Your task to perform on an android device: open a new tab in the chrome app Image 0: 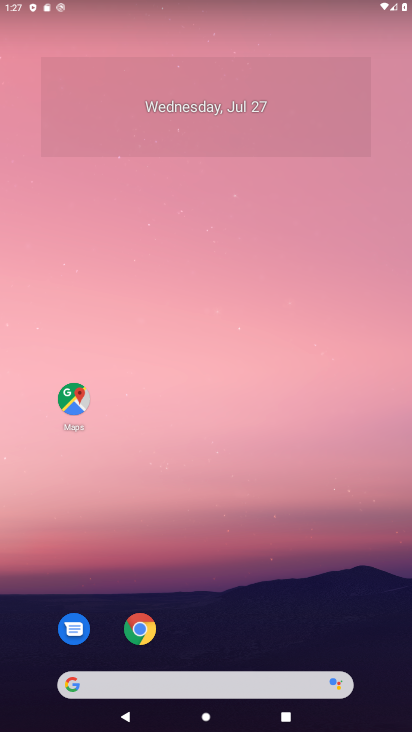
Step 0: press home button
Your task to perform on an android device: open a new tab in the chrome app Image 1: 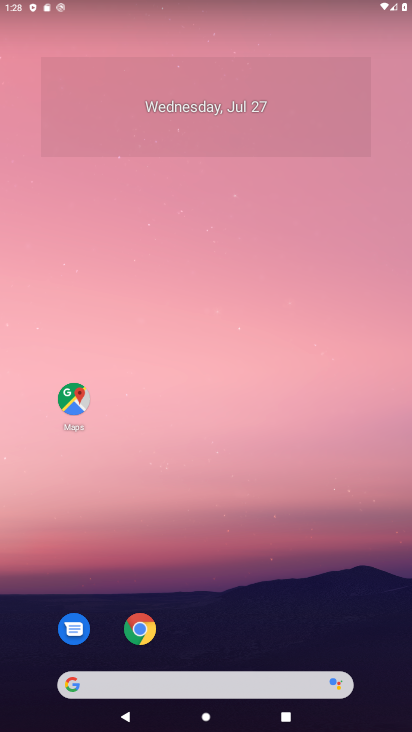
Step 1: drag from (226, 616) to (218, 196)
Your task to perform on an android device: open a new tab in the chrome app Image 2: 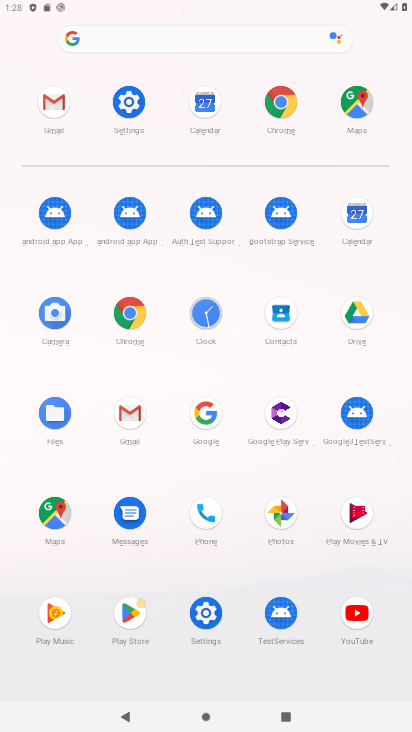
Step 2: click (278, 103)
Your task to perform on an android device: open a new tab in the chrome app Image 3: 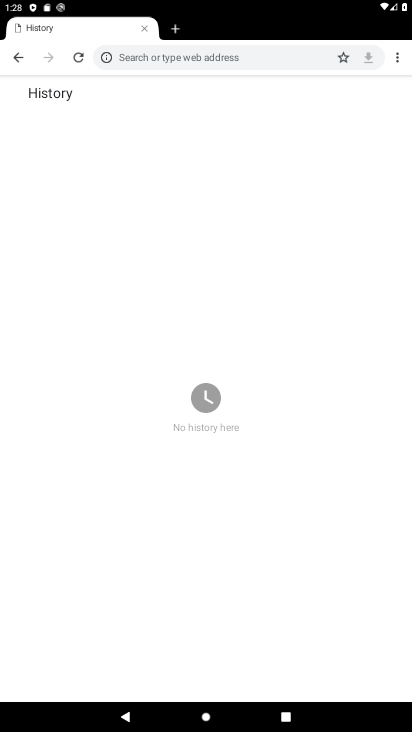
Step 3: click (20, 56)
Your task to perform on an android device: open a new tab in the chrome app Image 4: 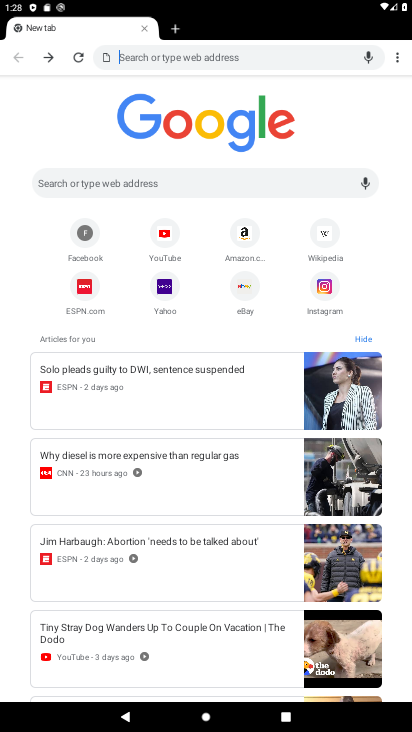
Step 4: click (171, 31)
Your task to perform on an android device: open a new tab in the chrome app Image 5: 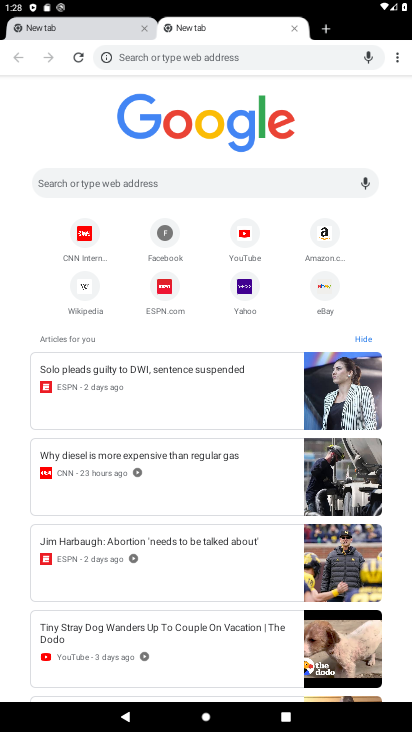
Step 5: task complete